Your task to perform on an android device: Open the calendar app, open the side menu, and click the "Day" option Image 0: 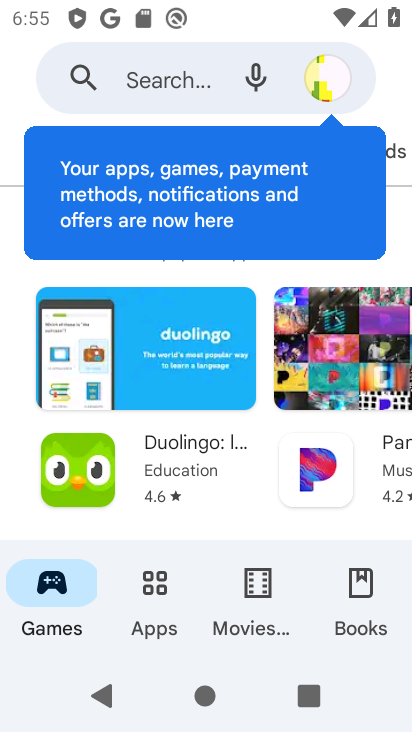
Step 0: press home button
Your task to perform on an android device: Open the calendar app, open the side menu, and click the "Day" option Image 1: 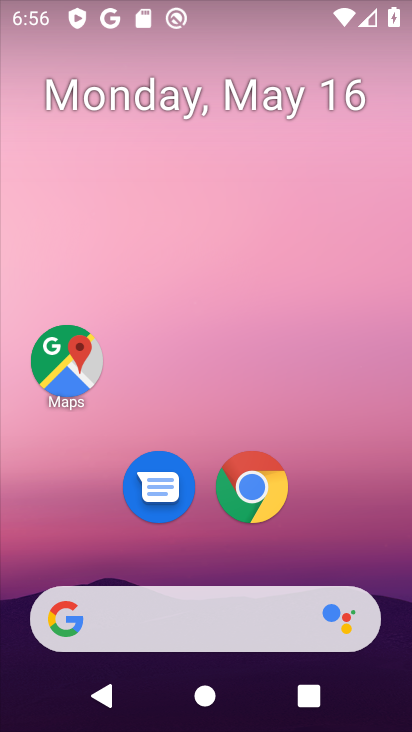
Step 1: drag from (336, 571) to (279, 141)
Your task to perform on an android device: Open the calendar app, open the side menu, and click the "Day" option Image 2: 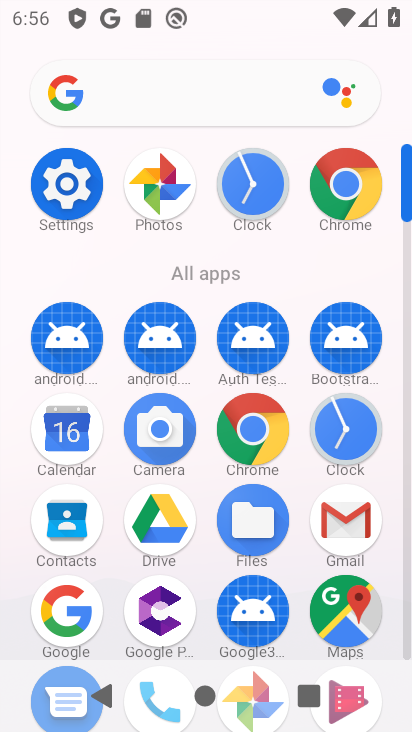
Step 2: click (75, 445)
Your task to perform on an android device: Open the calendar app, open the side menu, and click the "Day" option Image 3: 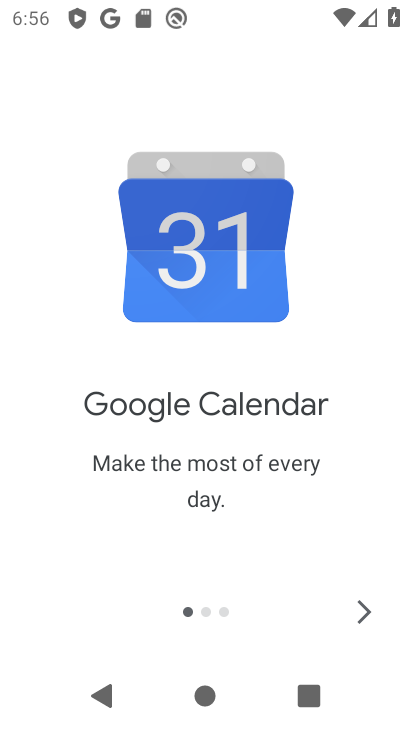
Step 3: click (371, 617)
Your task to perform on an android device: Open the calendar app, open the side menu, and click the "Day" option Image 4: 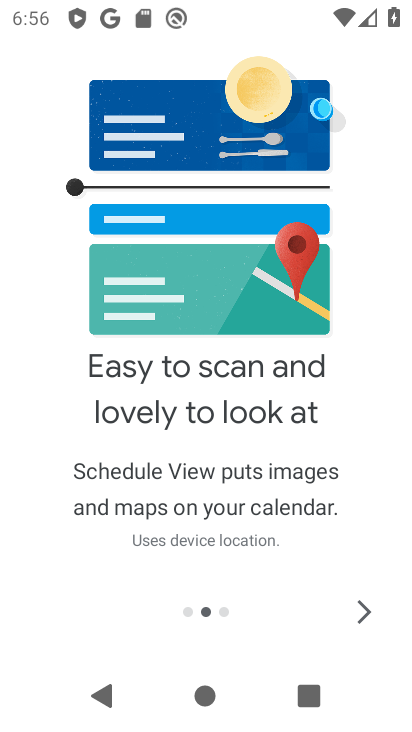
Step 4: click (371, 617)
Your task to perform on an android device: Open the calendar app, open the side menu, and click the "Day" option Image 5: 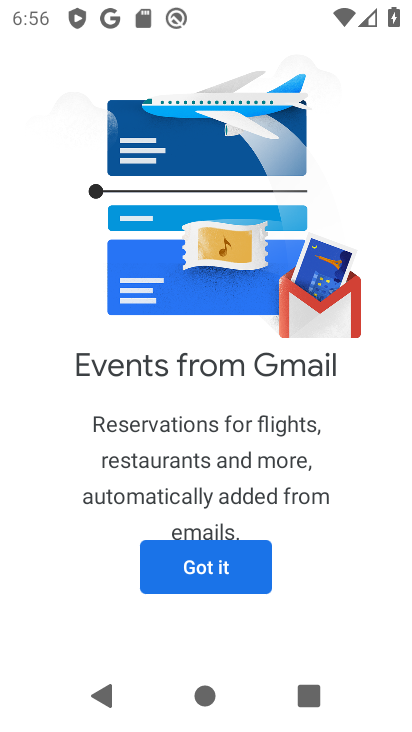
Step 5: click (219, 572)
Your task to perform on an android device: Open the calendar app, open the side menu, and click the "Day" option Image 6: 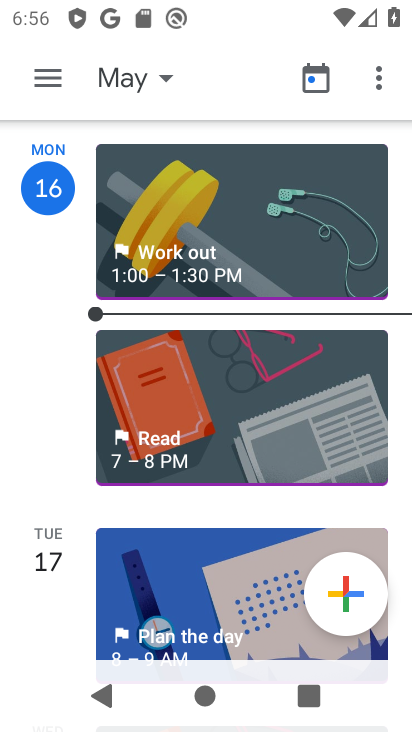
Step 6: click (48, 91)
Your task to perform on an android device: Open the calendar app, open the side menu, and click the "Day" option Image 7: 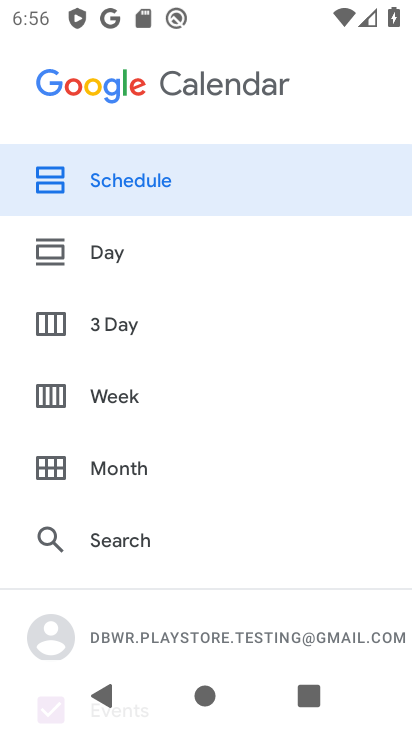
Step 7: click (139, 246)
Your task to perform on an android device: Open the calendar app, open the side menu, and click the "Day" option Image 8: 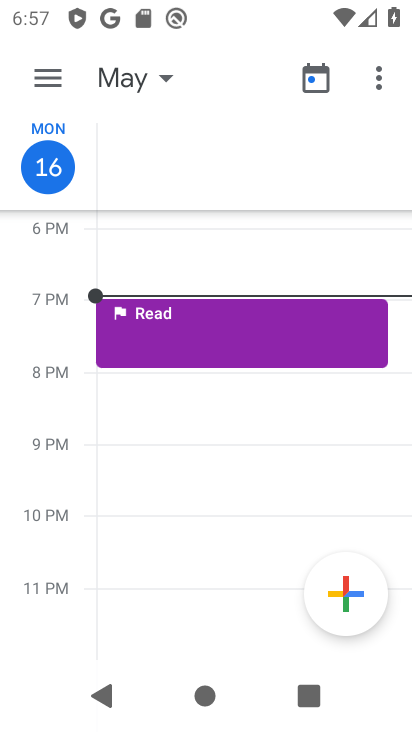
Step 8: task complete